Your task to perform on an android device: check storage Image 0: 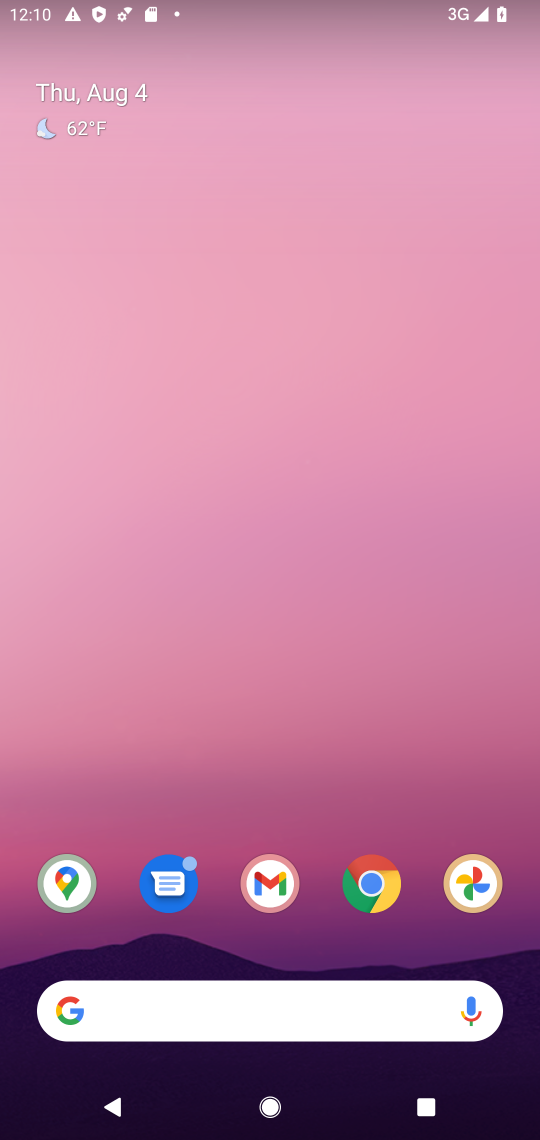
Step 0: drag from (267, 952) to (271, 499)
Your task to perform on an android device: check storage Image 1: 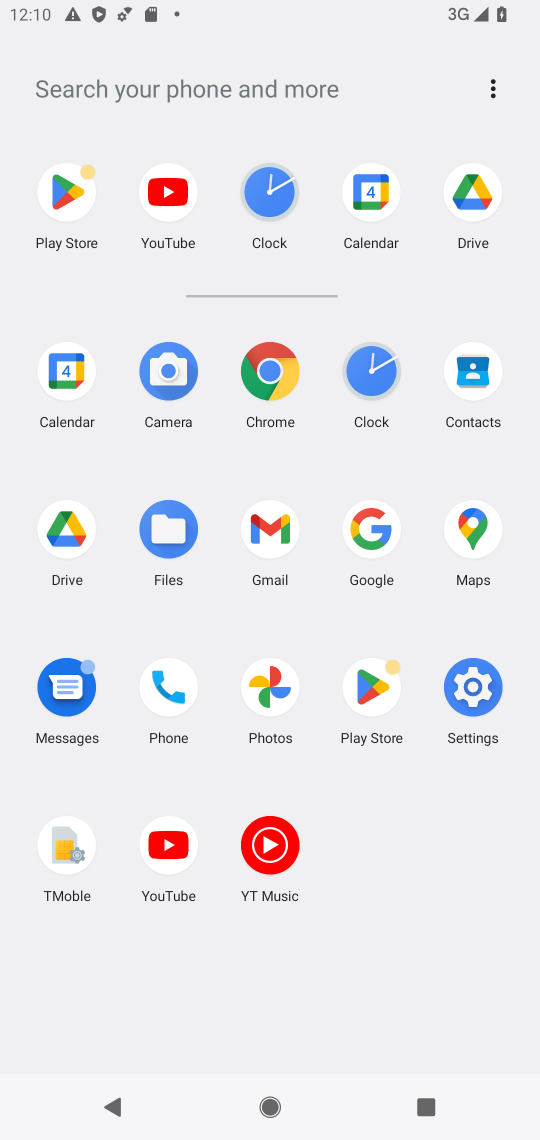
Step 1: click (491, 689)
Your task to perform on an android device: check storage Image 2: 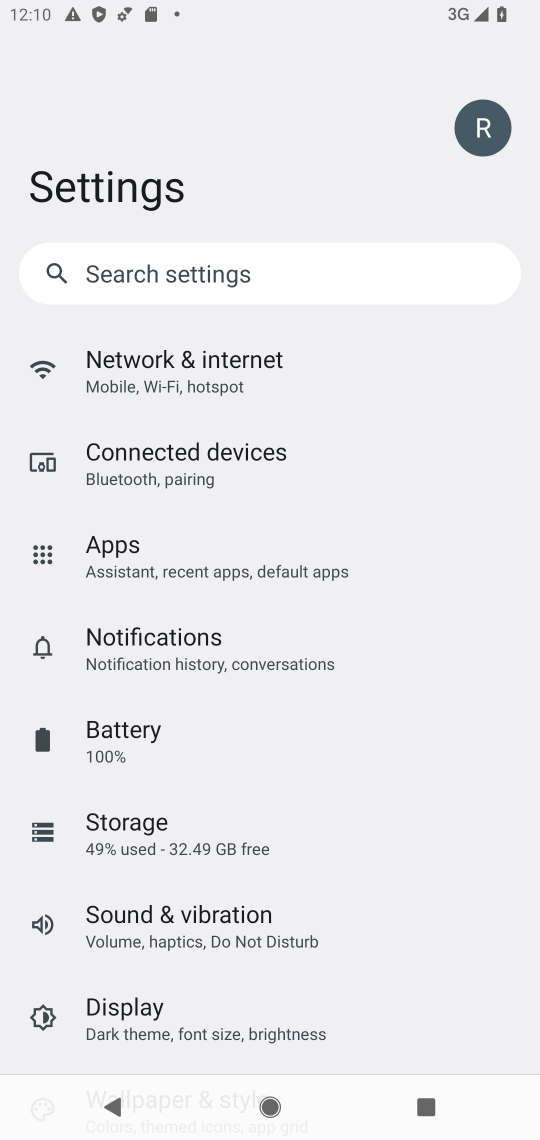
Step 2: drag from (398, 810) to (398, 314)
Your task to perform on an android device: check storage Image 3: 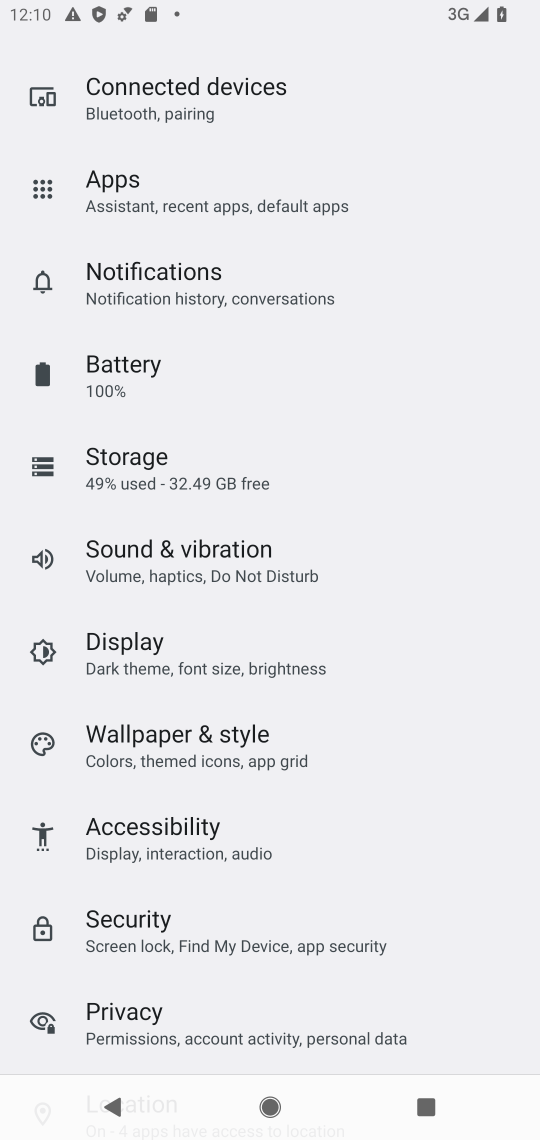
Step 3: click (242, 480)
Your task to perform on an android device: check storage Image 4: 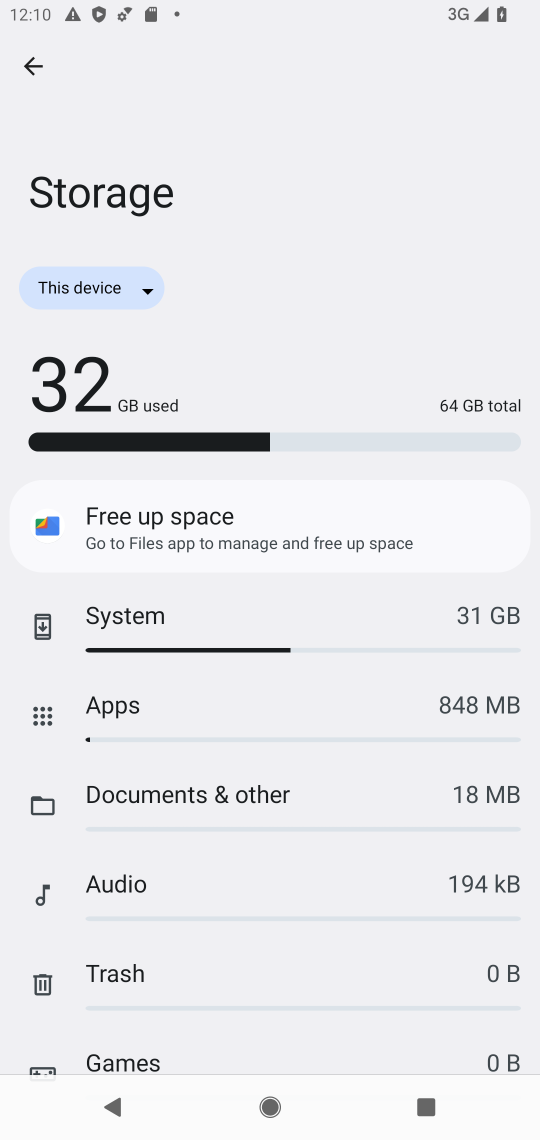
Step 4: task complete